Your task to perform on an android device: Empty the shopping cart on bestbuy.com. Search for "usb-b" on bestbuy.com, select the first entry, add it to the cart, then select checkout. Image 0: 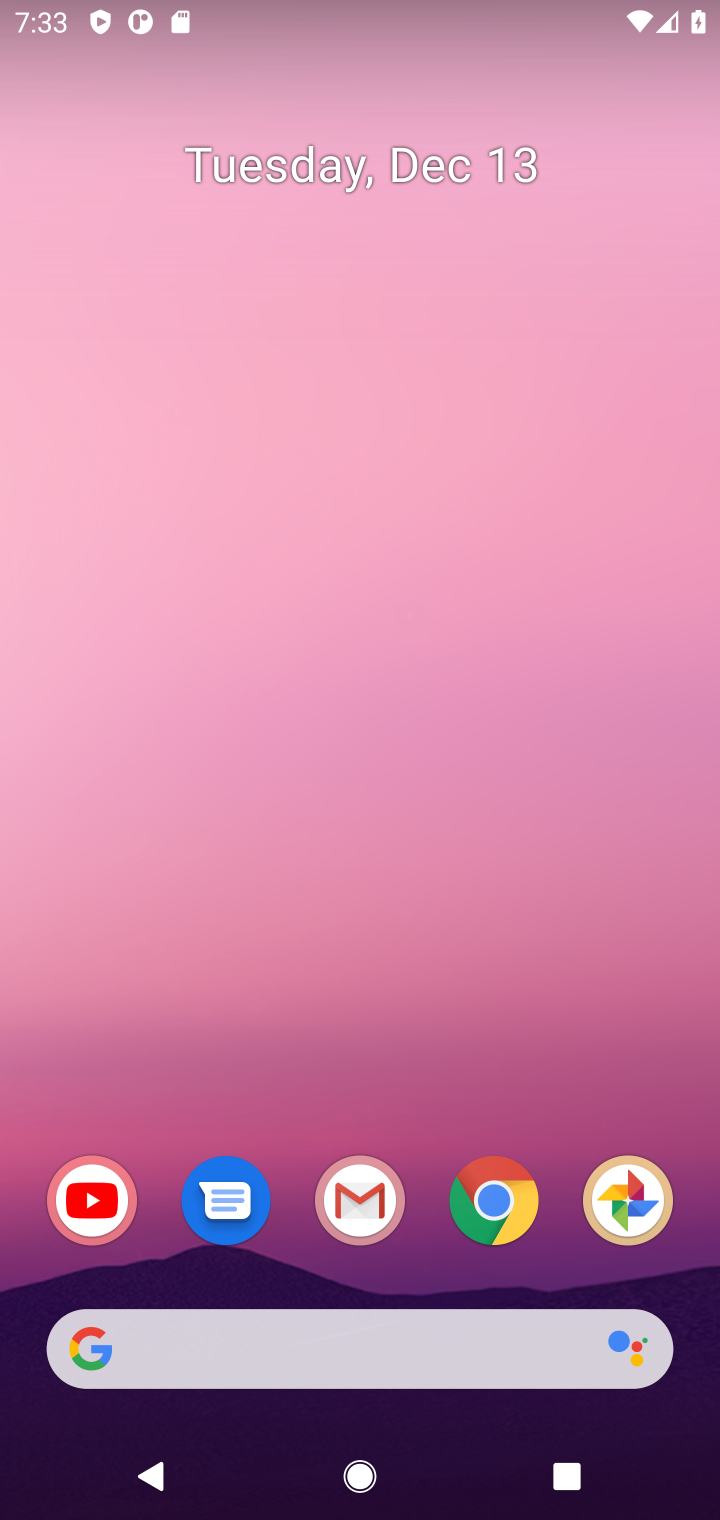
Step 0: drag from (342, 1275) to (293, 746)
Your task to perform on an android device: Empty the shopping cart on bestbuy.com. Search for "usb-b" on bestbuy.com, select the first entry, add it to the cart, then select checkout. Image 1: 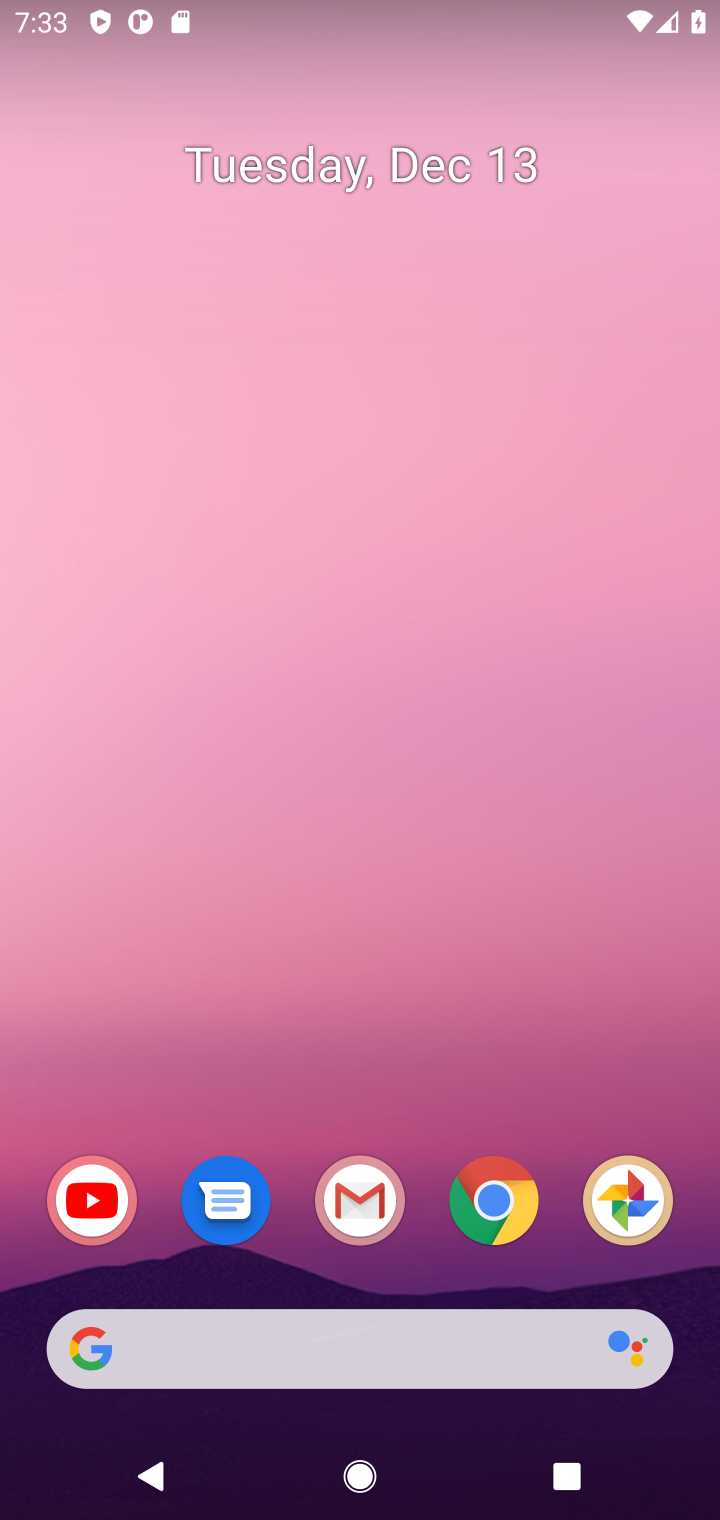
Step 1: drag from (324, 1207) to (364, 477)
Your task to perform on an android device: Empty the shopping cart on bestbuy.com. Search for "usb-b" on bestbuy.com, select the first entry, add it to the cart, then select checkout. Image 2: 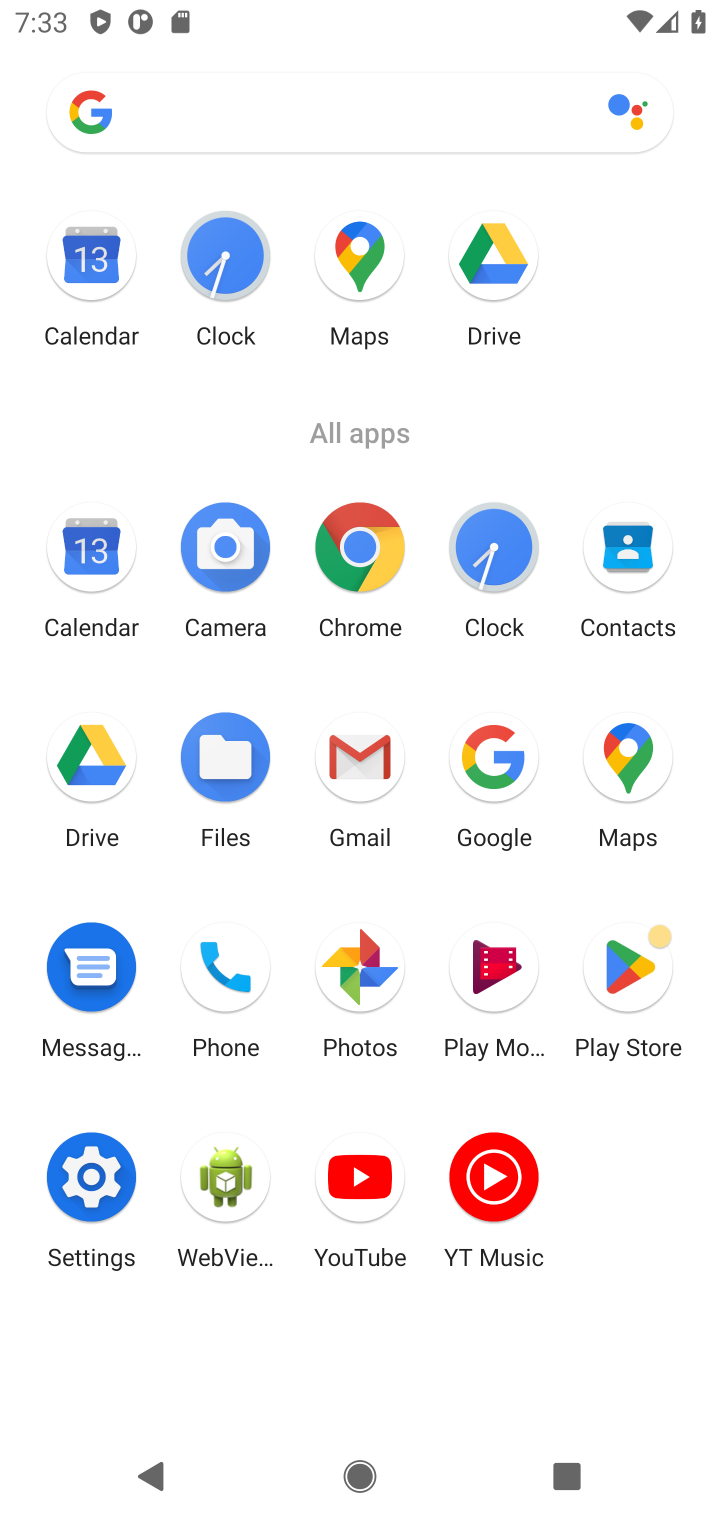
Step 2: click (364, 477)
Your task to perform on an android device: Empty the shopping cart on bestbuy.com. Search for "usb-b" on bestbuy.com, select the first entry, add it to the cart, then select checkout. Image 3: 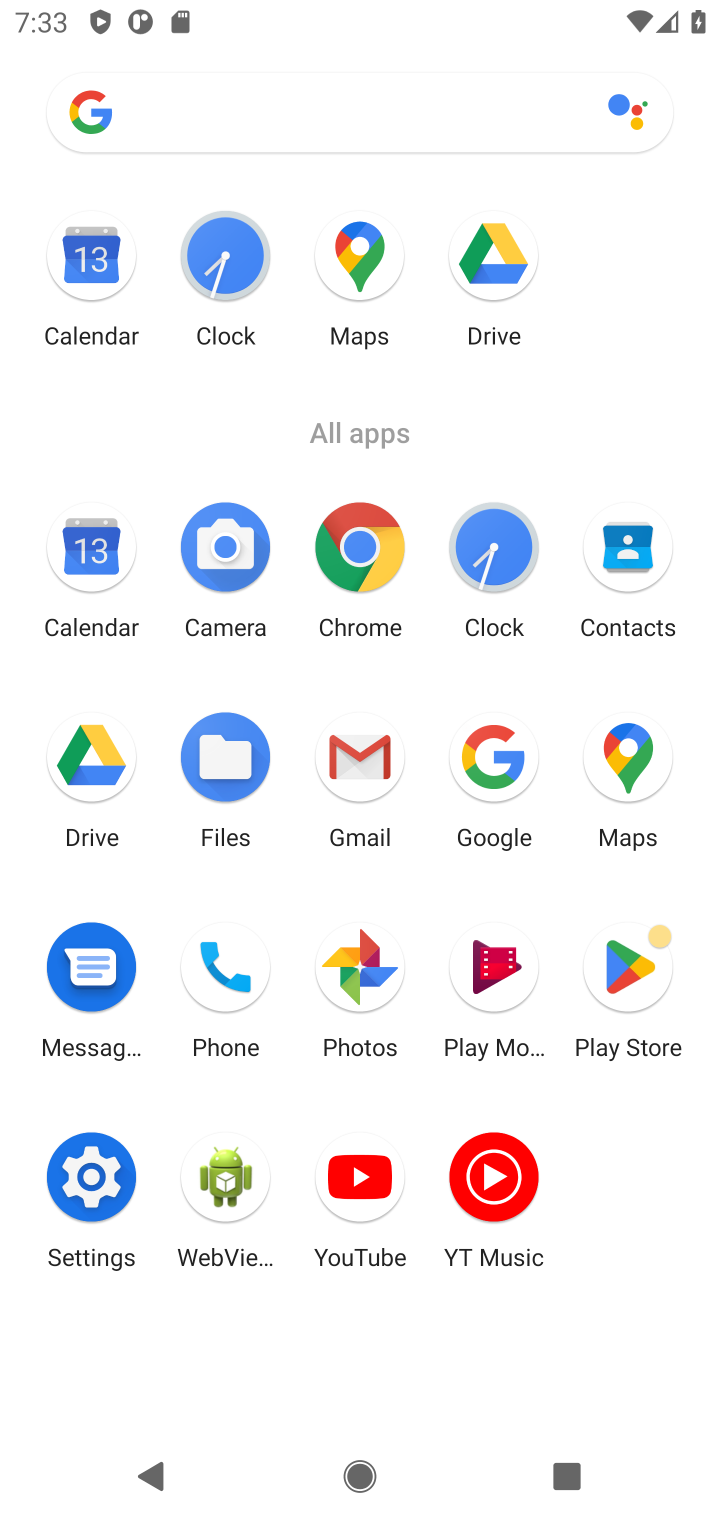
Step 3: click (503, 746)
Your task to perform on an android device: Empty the shopping cart on bestbuy.com. Search for "usb-b" on bestbuy.com, select the first entry, add it to the cart, then select checkout. Image 4: 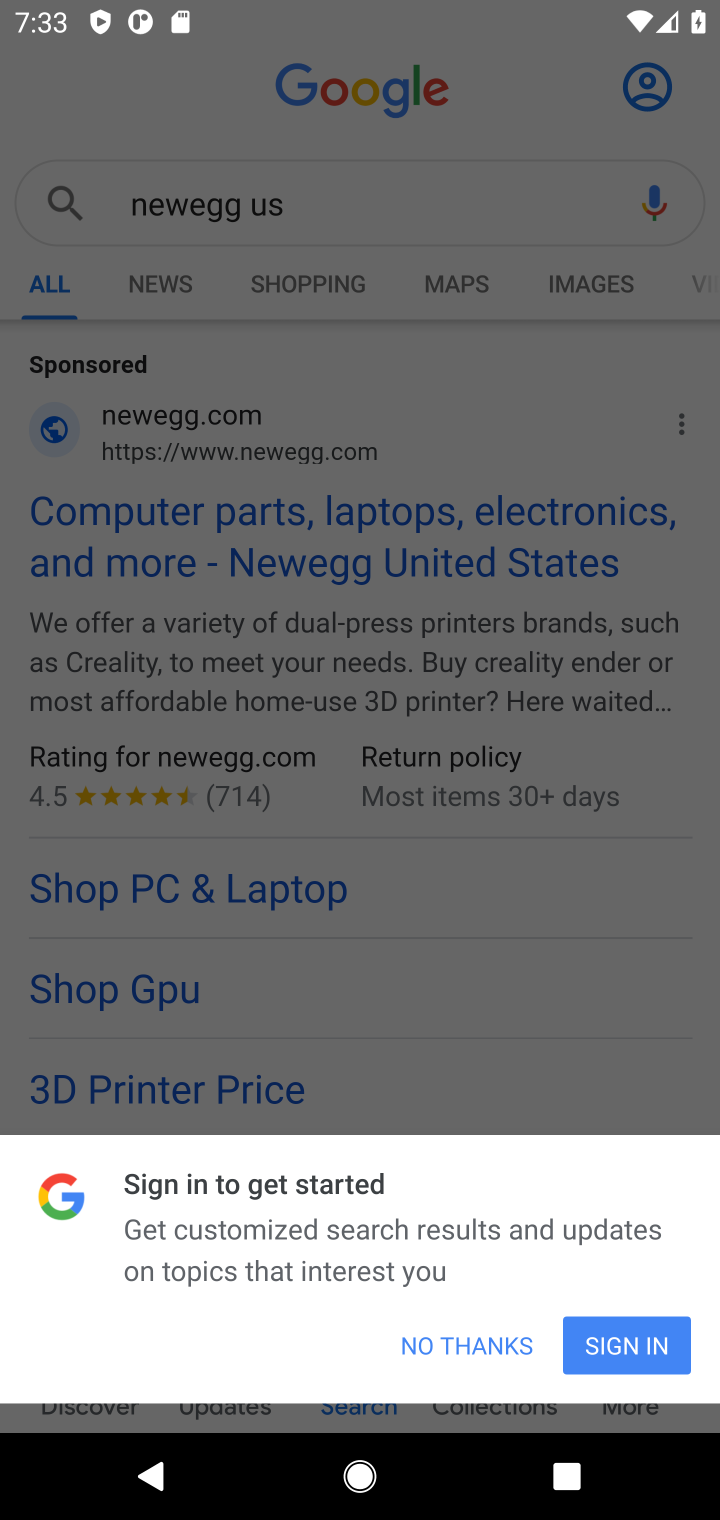
Step 4: click (465, 1342)
Your task to perform on an android device: Empty the shopping cart on bestbuy.com. Search for "usb-b" on bestbuy.com, select the first entry, add it to the cart, then select checkout. Image 5: 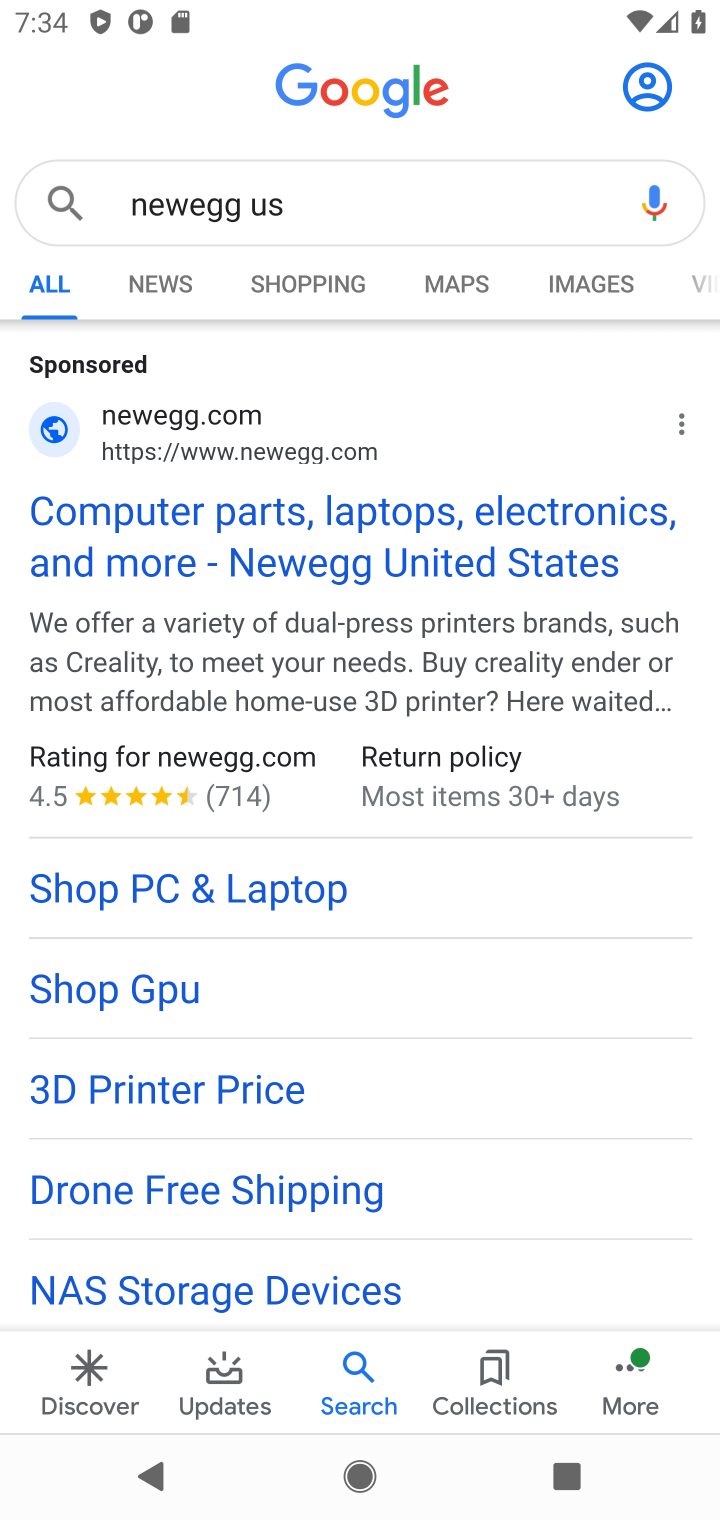
Step 5: click (365, 197)
Your task to perform on an android device: Empty the shopping cart on bestbuy.com. Search for "usb-b" on bestbuy.com, select the first entry, add it to the cart, then select checkout. Image 6: 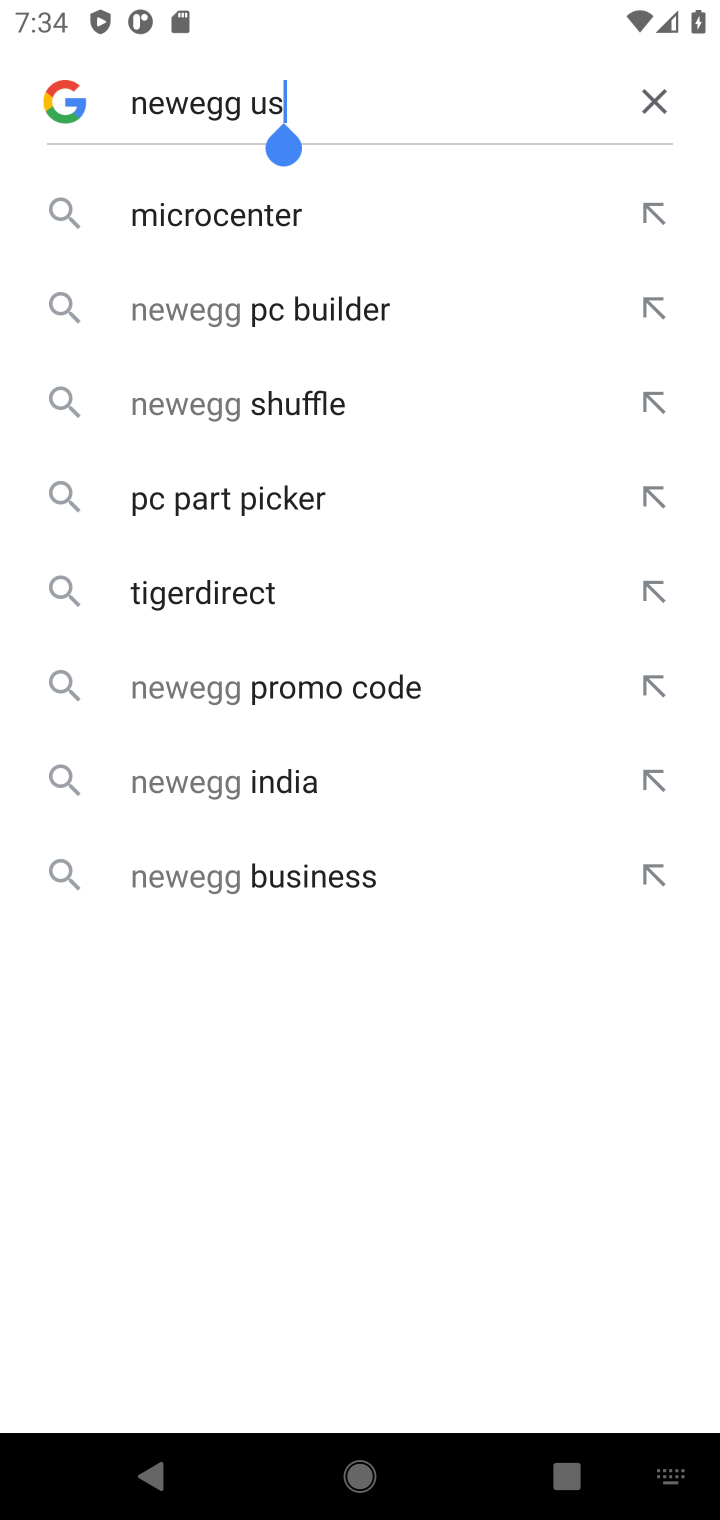
Step 6: click (660, 102)
Your task to perform on an android device: Empty the shopping cart on bestbuy.com. Search for "usb-b" on bestbuy.com, select the first entry, add it to the cart, then select checkout. Image 7: 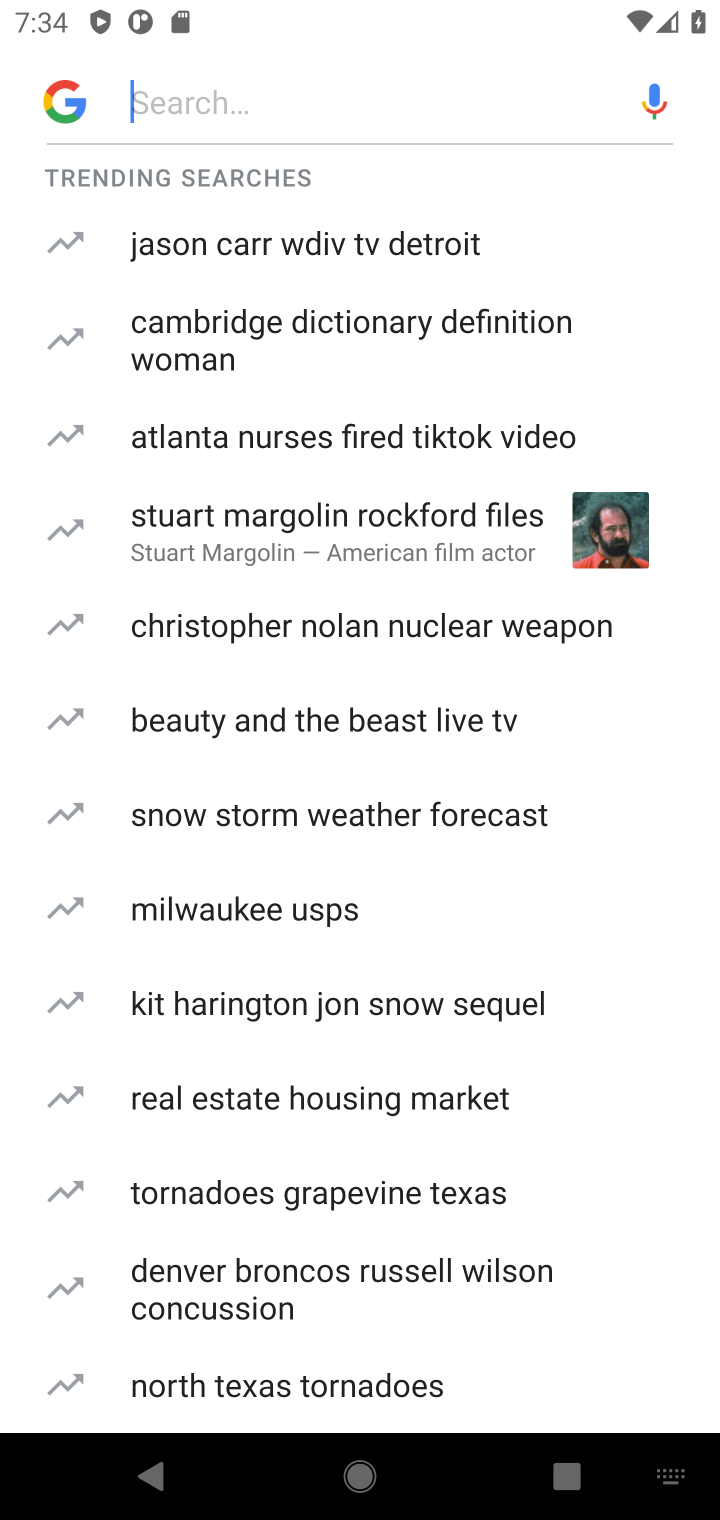
Step 7: type " bestbuy.com"
Your task to perform on an android device: Empty the shopping cart on bestbuy.com. Search for "usb-b" on bestbuy.com, select the first entry, add it to the cart, then select checkout. Image 8: 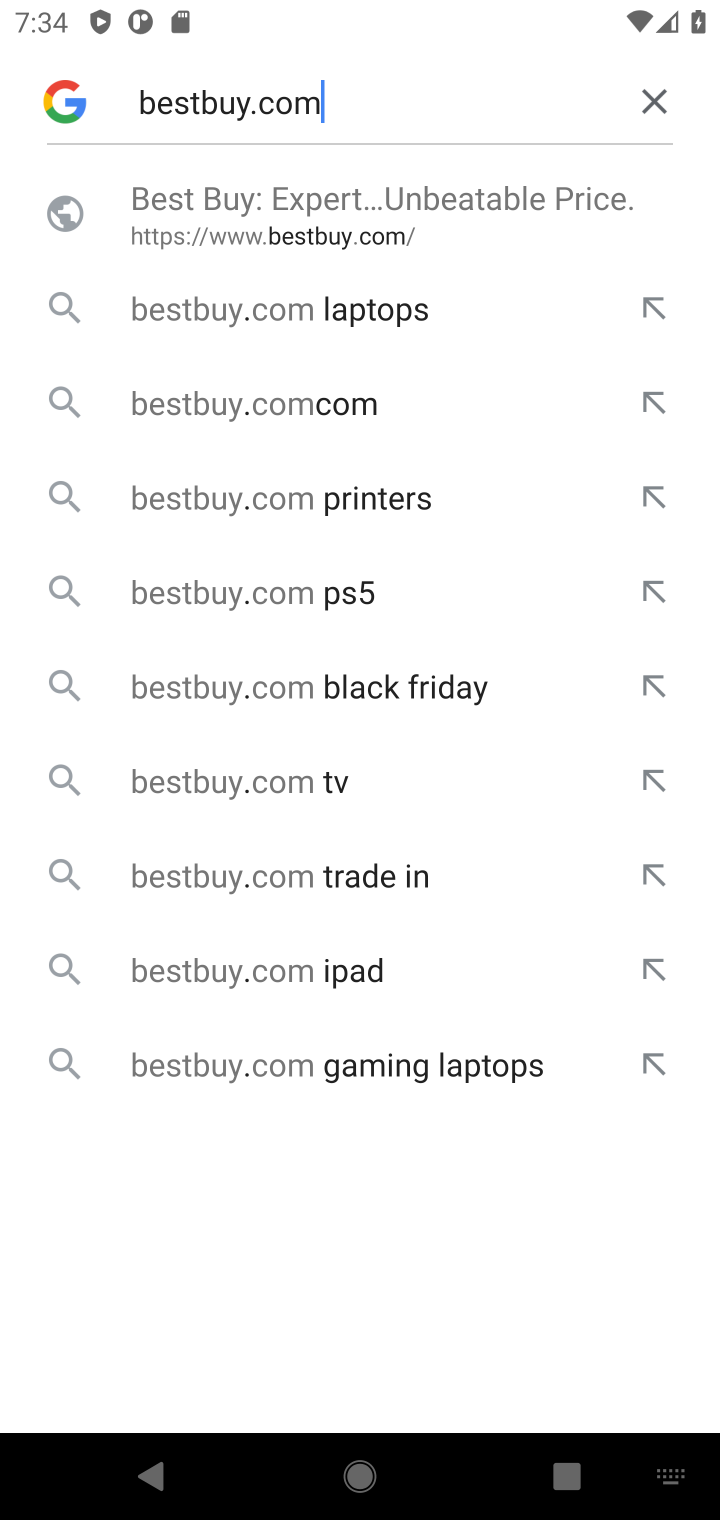
Step 8: click (292, 210)
Your task to perform on an android device: Empty the shopping cart on bestbuy.com. Search for "usb-b" on bestbuy.com, select the first entry, add it to the cart, then select checkout. Image 9: 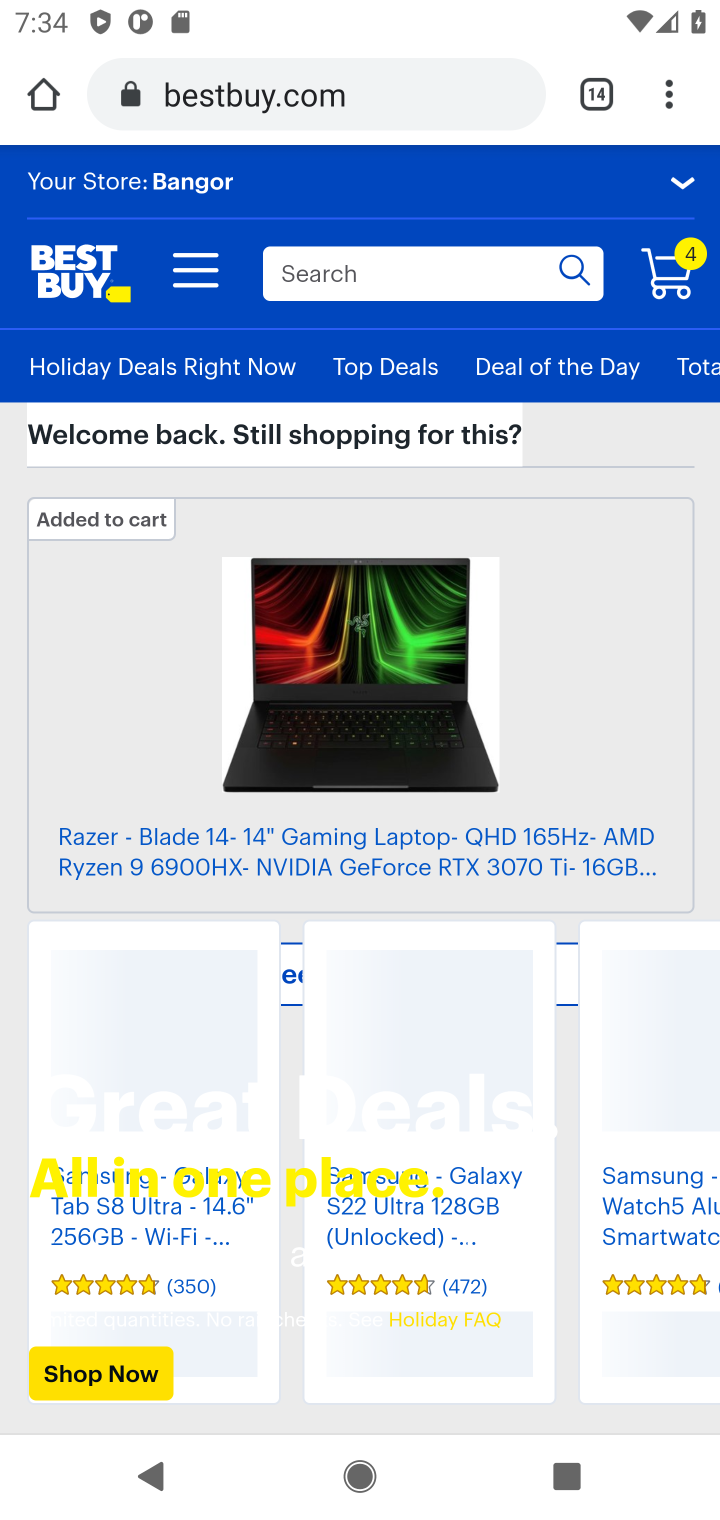
Step 9: click (684, 270)
Your task to perform on an android device: Empty the shopping cart on bestbuy.com. Search for "usb-b" on bestbuy.com, select the first entry, add it to the cart, then select checkout. Image 10: 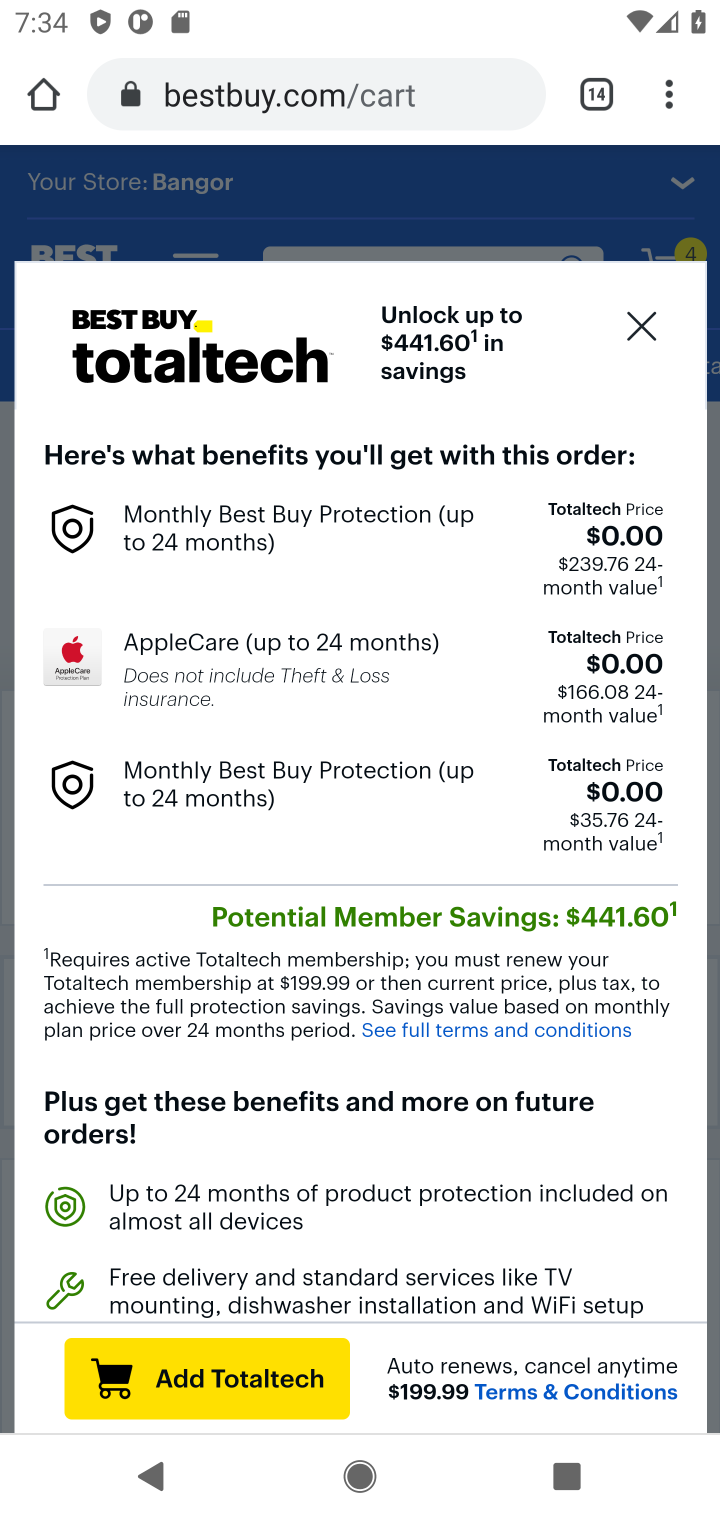
Step 10: click (647, 314)
Your task to perform on an android device: Empty the shopping cart on bestbuy.com. Search for "usb-b" on bestbuy.com, select the first entry, add it to the cart, then select checkout. Image 11: 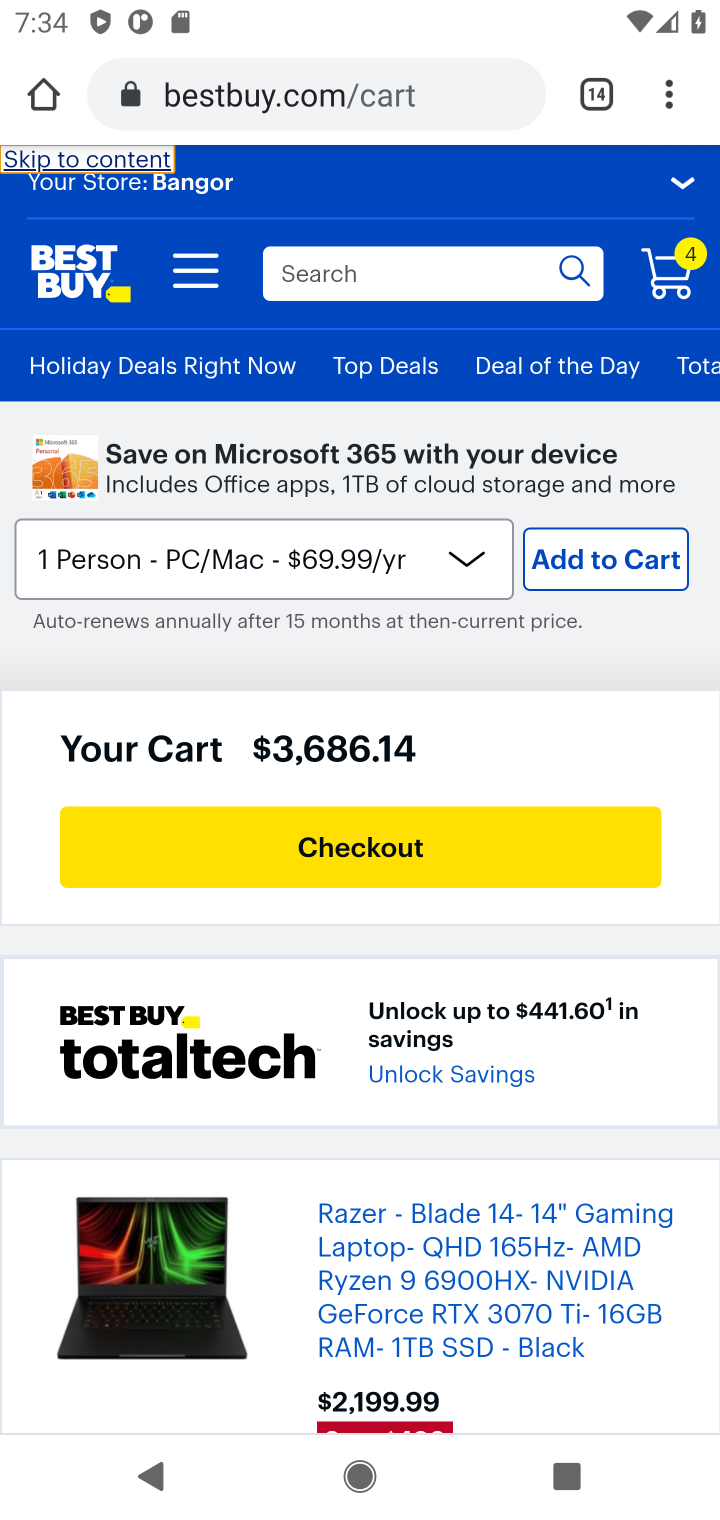
Step 11: drag from (455, 1128) to (465, 771)
Your task to perform on an android device: Empty the shopping cart on bestbuy.com. Search for "usb-b" on bestbuy.com, select the first entry, add it to the cart, then select checkout. Image 12: 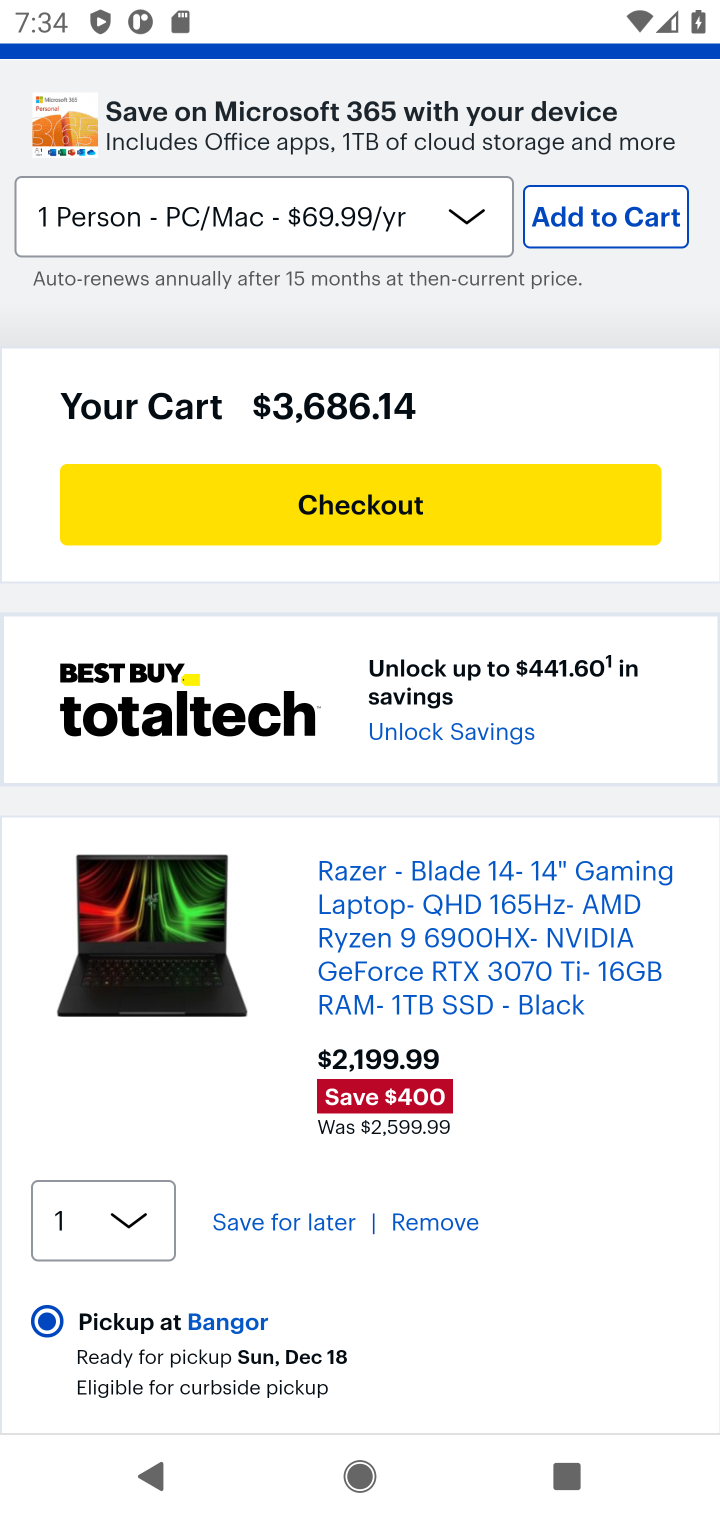
Step 12: click (419, 1213)
Your task to perform on an android device: Empty the shopping cart on bestbuy.com. Search for "usb-b" on bestbuy.com, select the first entry, add it to the cart, then select checkout. Image 13: 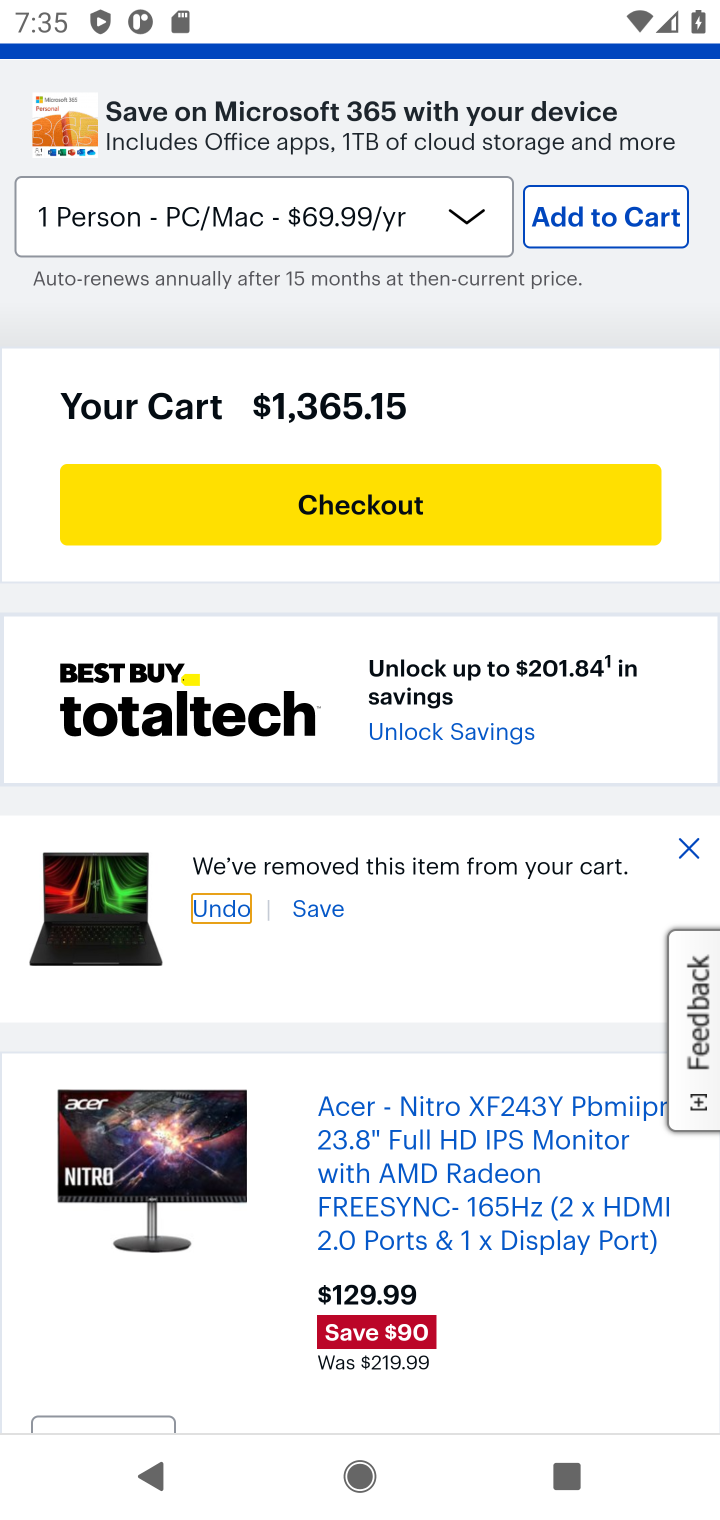
Step 13: drag from (537, 1249) to (467, 949)
Your task to perform on an android device: Empty the shopping cart on bestbuy.com. Search for "usb-b" on bestbuy.com, select the first entry, add it to the cart, then select checkout. Image 14: 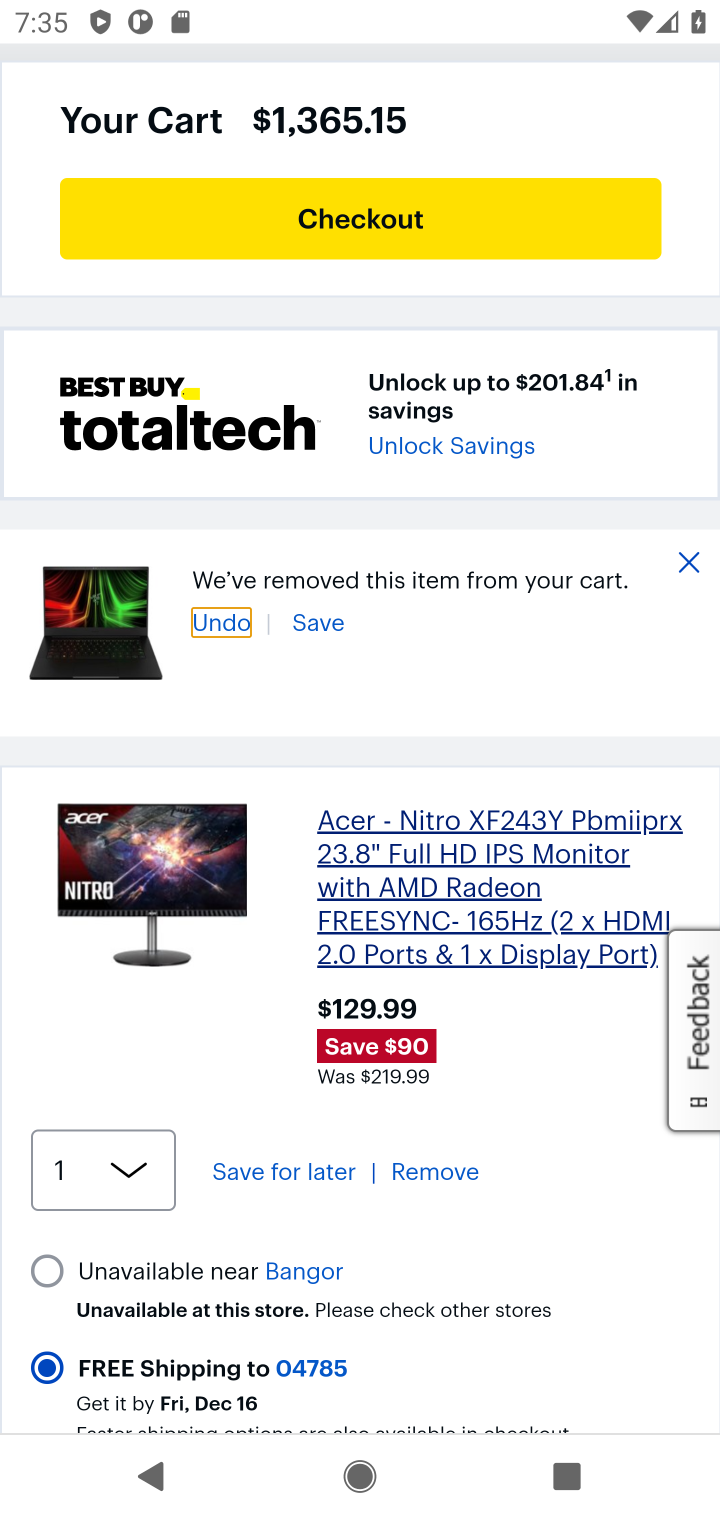
Step 14: click (422, 1168)
Your task to perform on an android device: Empty the shopping cart on bestbuy.com. Search for "usb-b" on bestbuy.com, select the first entry, add it to the cart, then select checkout. Image 15: 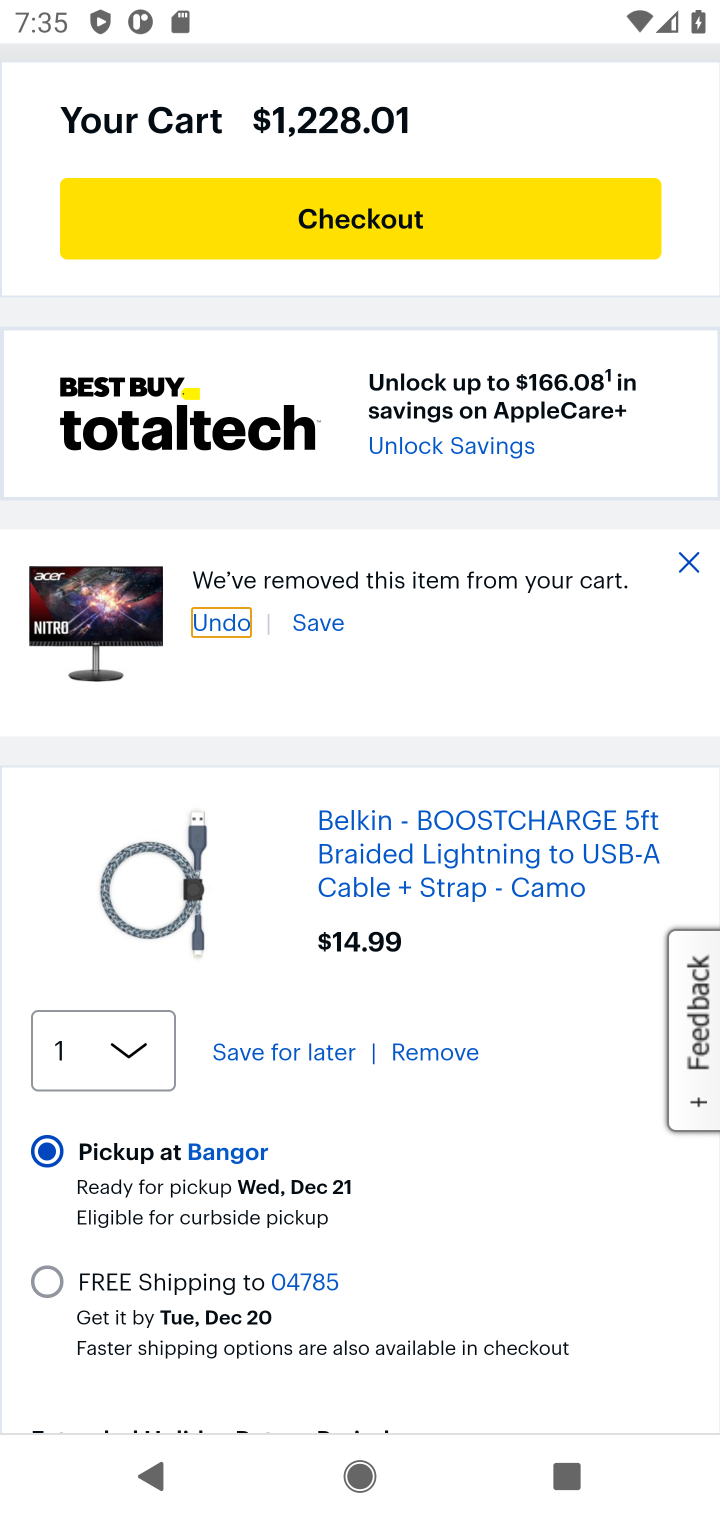
Step 15: drag from (476, 1153) to (440, 802)
Your task to perform on an android device: Empty the shopping cart on bestbuy.com. Search for "usb-b" on bestbuy.com, select the first entry, add it to the cart, then select checkout. Image 16: 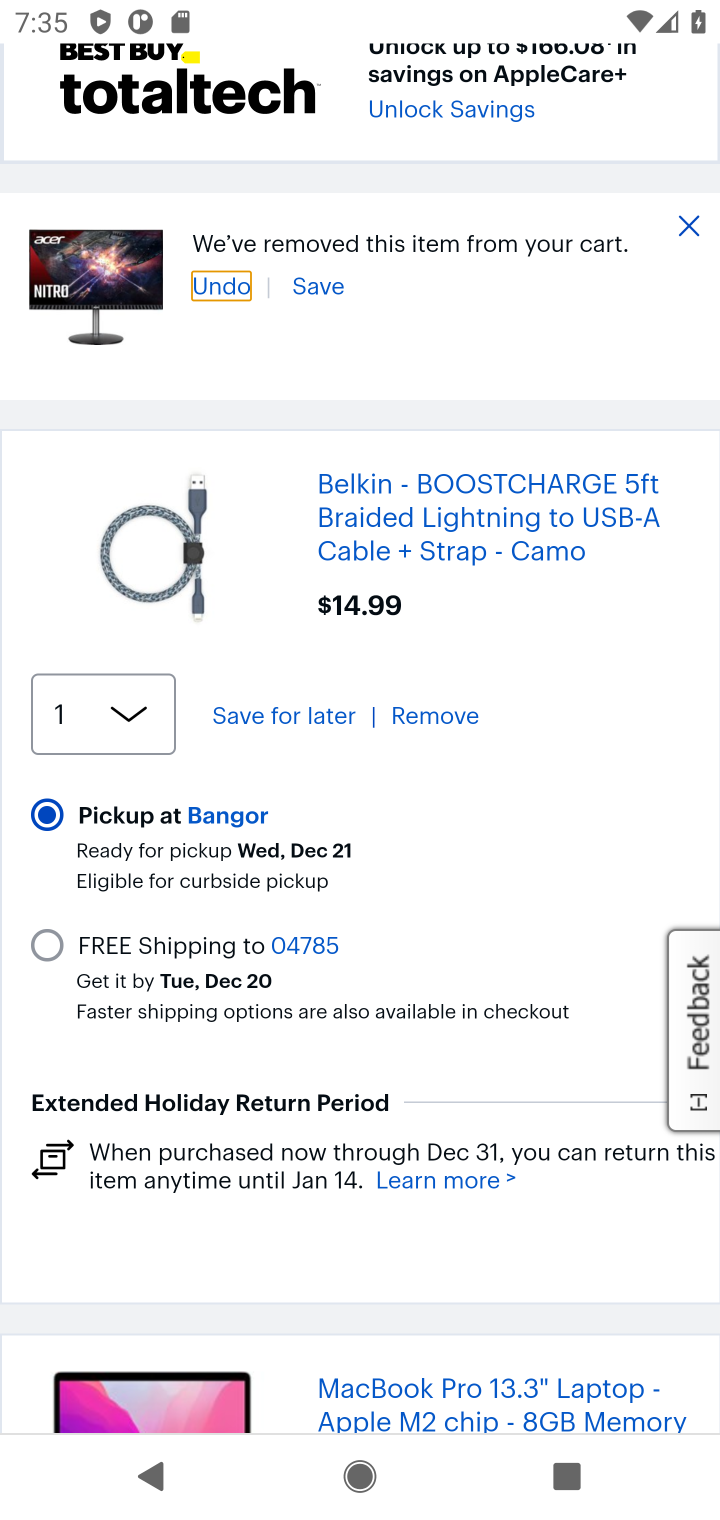
Step 16: click (436, 713)
Your task to perform on an android device: Empty the shopping cart on bestbuy.com. Search for "usb-b" on bestbuy.com, select the first entry, add it to the cart, then select checkout. Image 17: 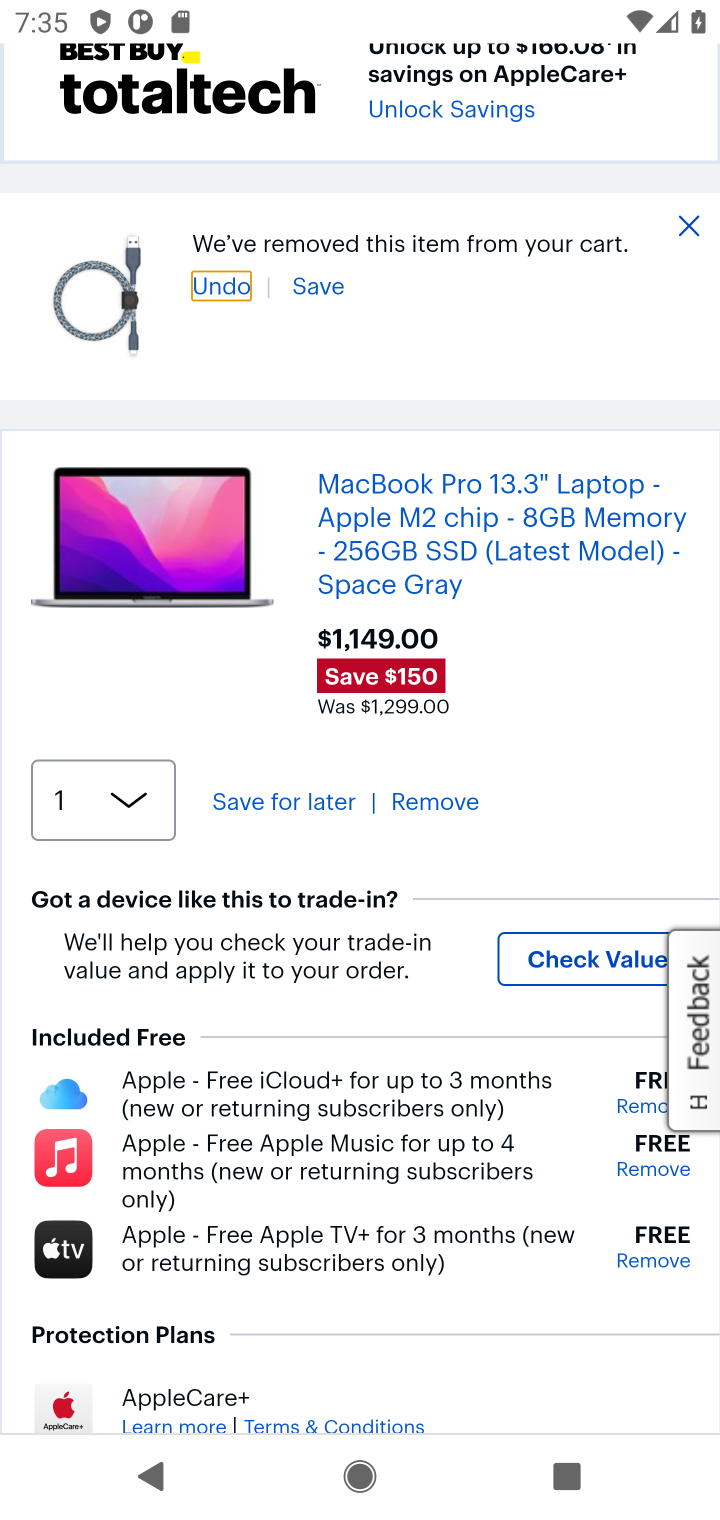
Step 17: click (452, 806)
Your task to perform on an android device: Empty the shopping cart on bestbuy.com. Search for "usb-b" on bestbuy.com, select the first entry, add it to the cart, then select checkout. Image 18: 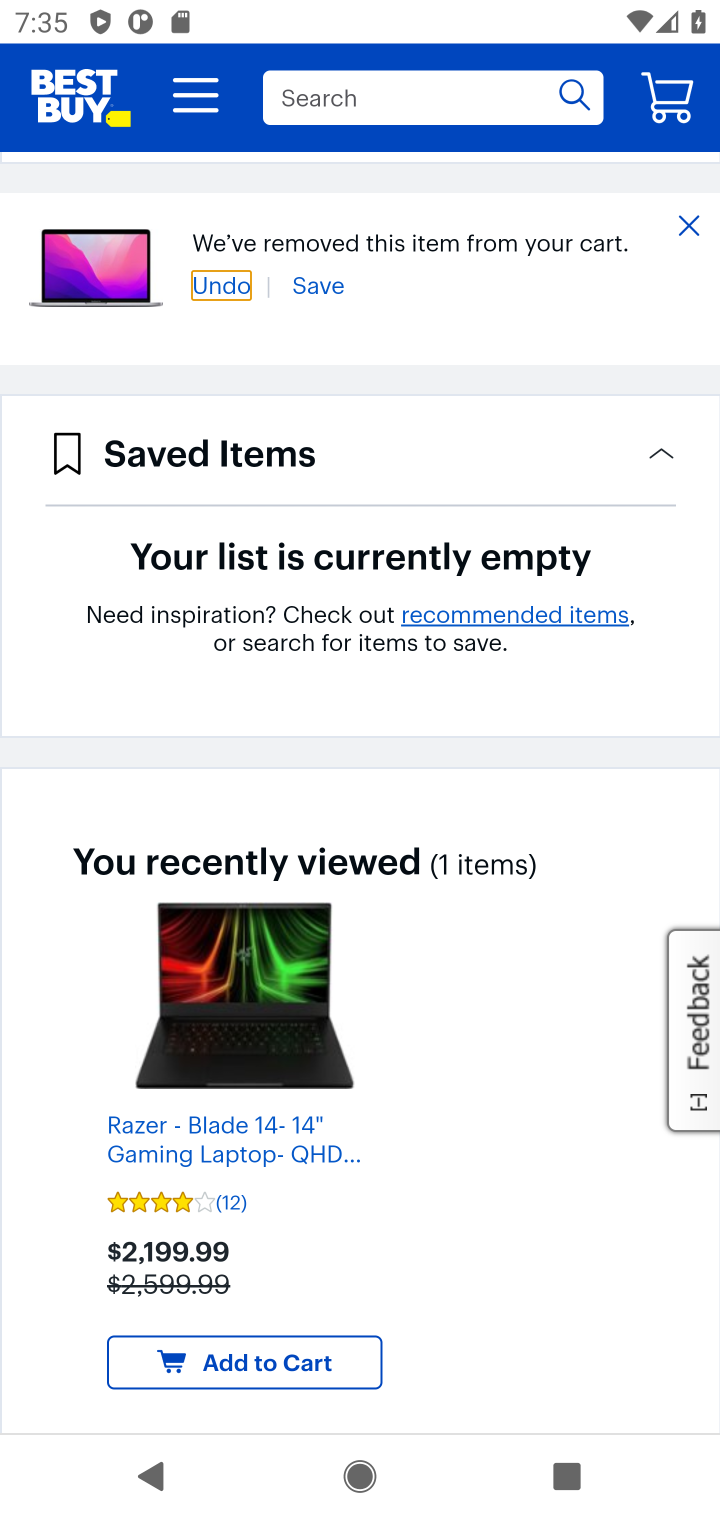
Step 18: drag from (627, 961) to (660, 1419)
Your task to perform on an android device: Empty the shopping cart on bestbuy.com. Search for "usb-b" on bestbuy.com, select the first entry, add it to the cart, then select checkout. Image 19: 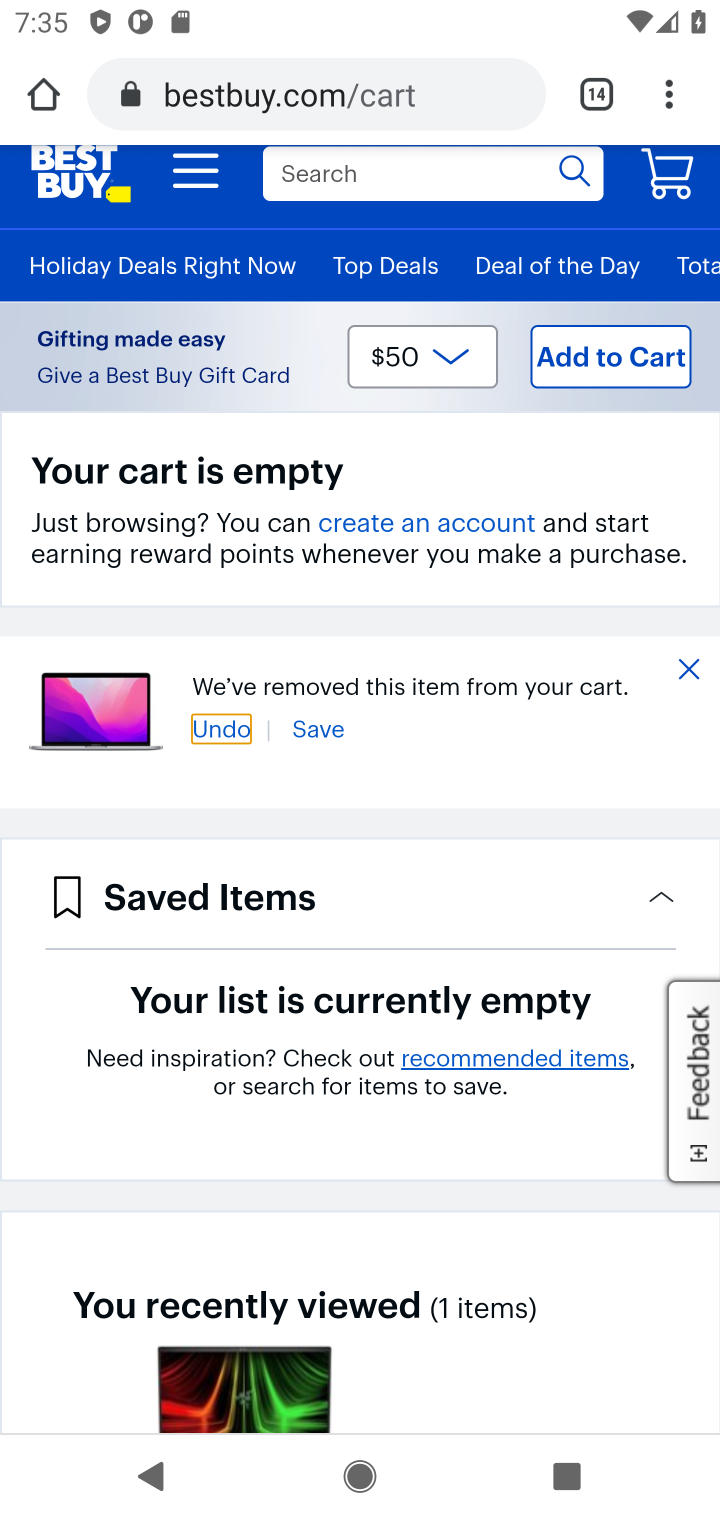
Step 19: click (390, 189)
Your task to perform on an android device: Empty the shopping cart on bestbuy.com. Search for "usb-b" on bestbuy.com, select the first entry, add it to the cart, then select checkout. Image 20: 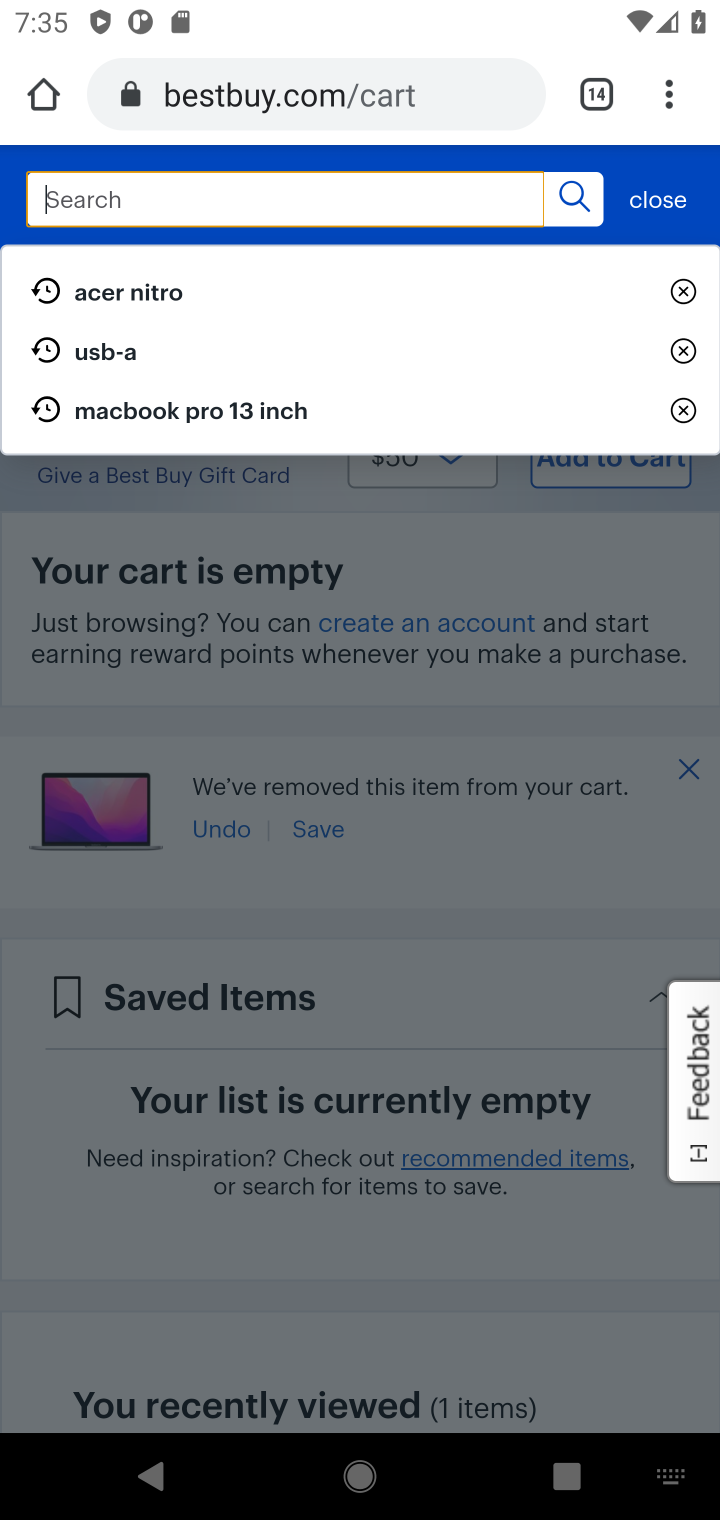
Step 20: type "usb-b"
Your task to perform on an android device: Empty the shopping cart on bestbuy.com. Search for "usb-b" on bestbuy.com, select the first entry, add it to the cart, then select checkout. Image 21: 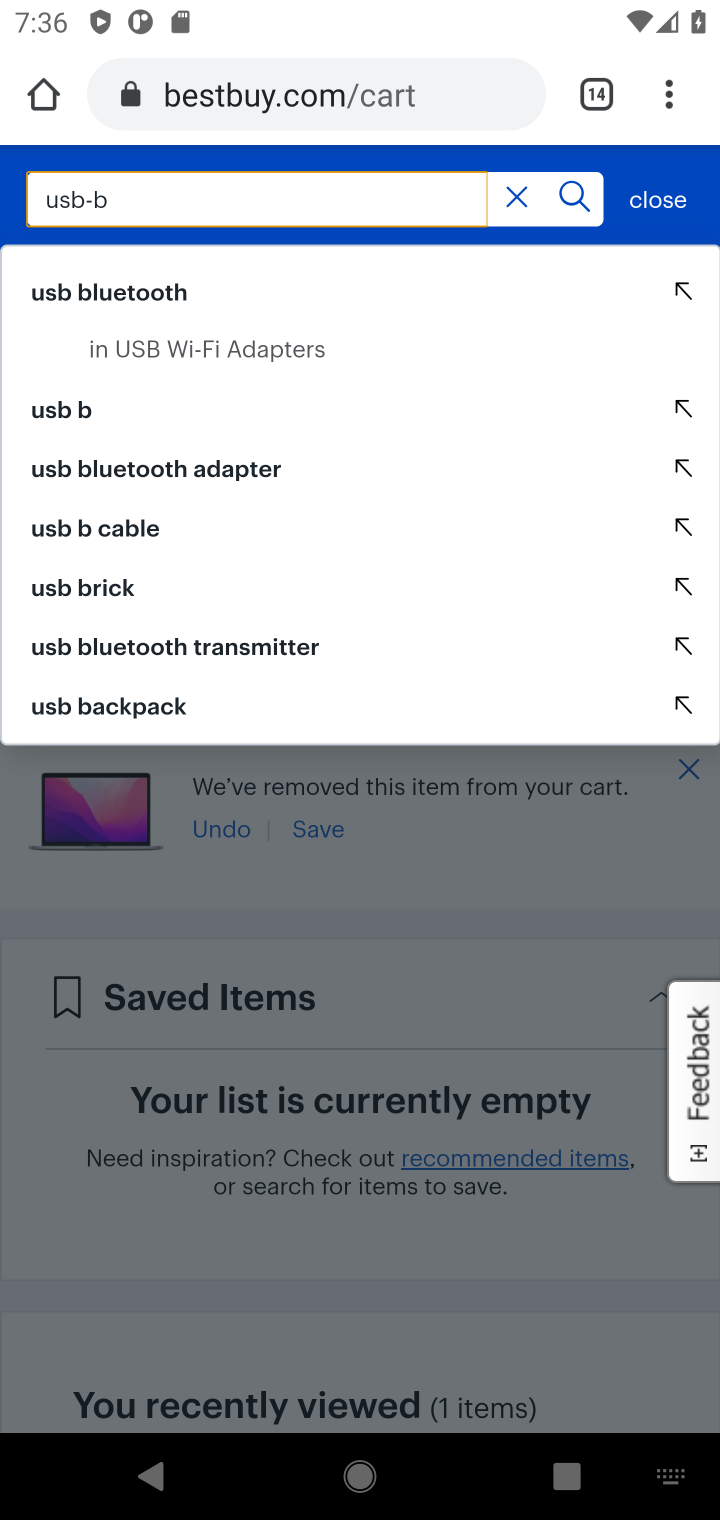
Step 21: click (567, 190)
Your task to perform on an android device: Empty the shopping cart on bestbuy.com. Search for "usb-b" on bestbuy.com, select the first entry, add it to the cart, then select checkout. Image 22: 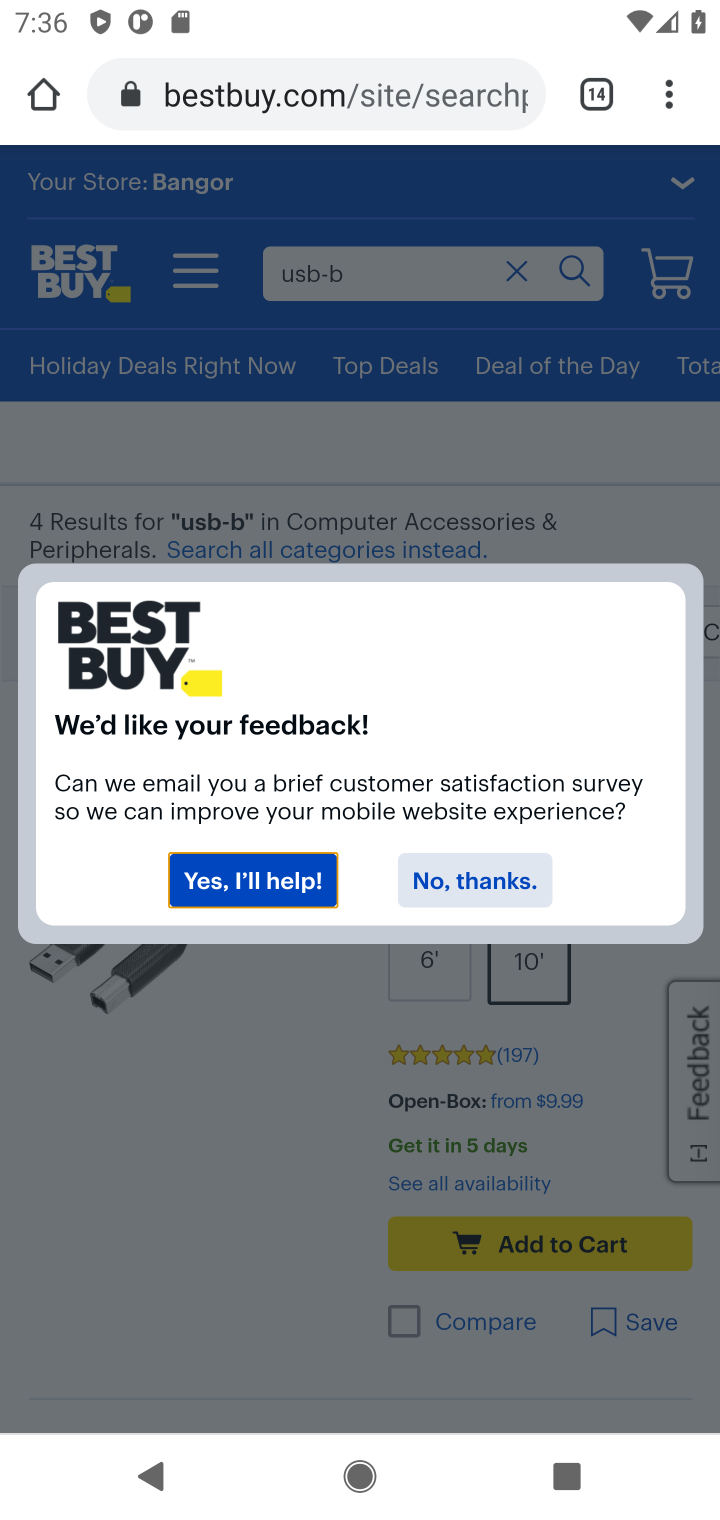
Step 22: click (431, 886)
Your task to perform on an android device: Empty the shopping cart on bestbuy.com. Search for "usb-b" on bestbuy.com, select the first entry, add it to the cart, then select checkout. Image 23: 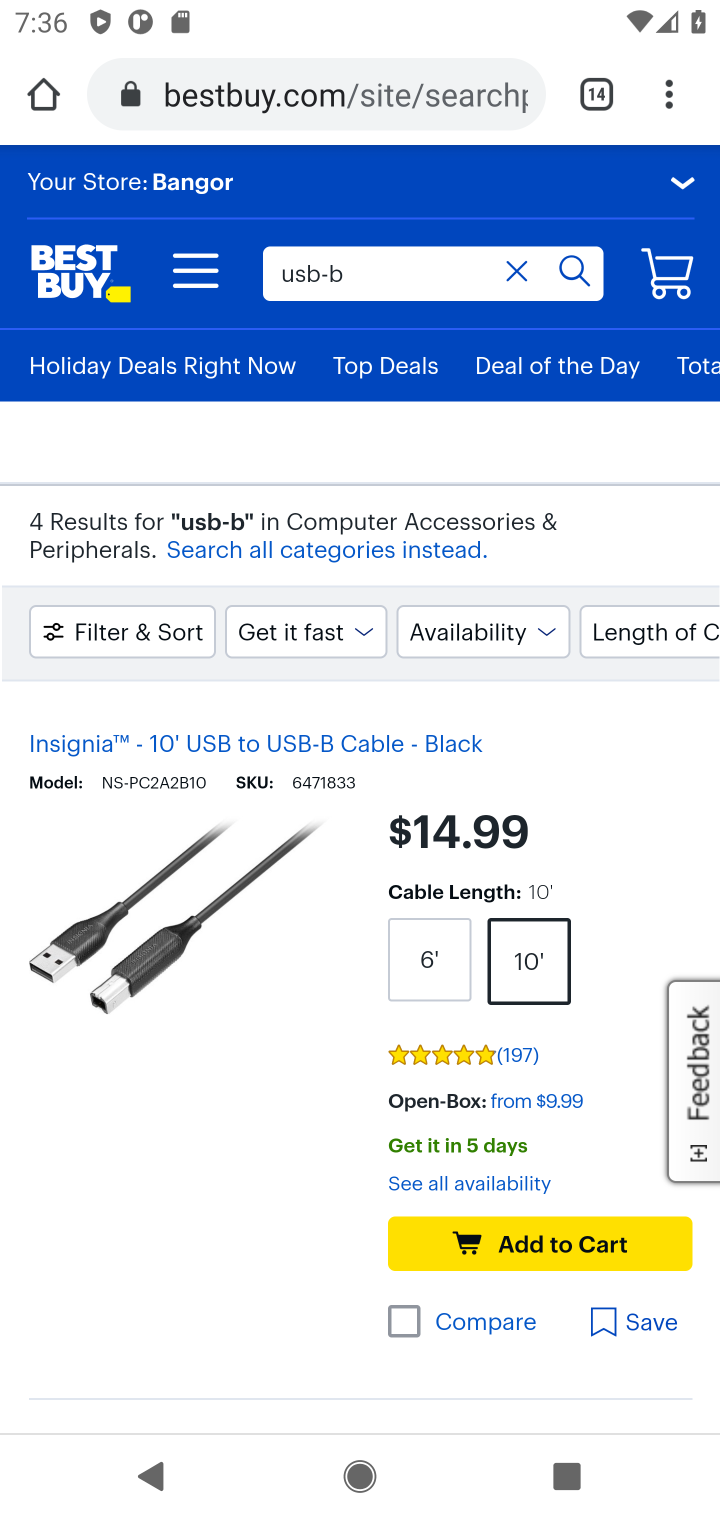
Step 23: click (544, 1255)
Your task to perform on an android device: Empty the shopping cart on bestbuy.com. Search for "usb-b" on bestbuy.com, select the first entry, add it to the cart, then select checkout. Image 24: 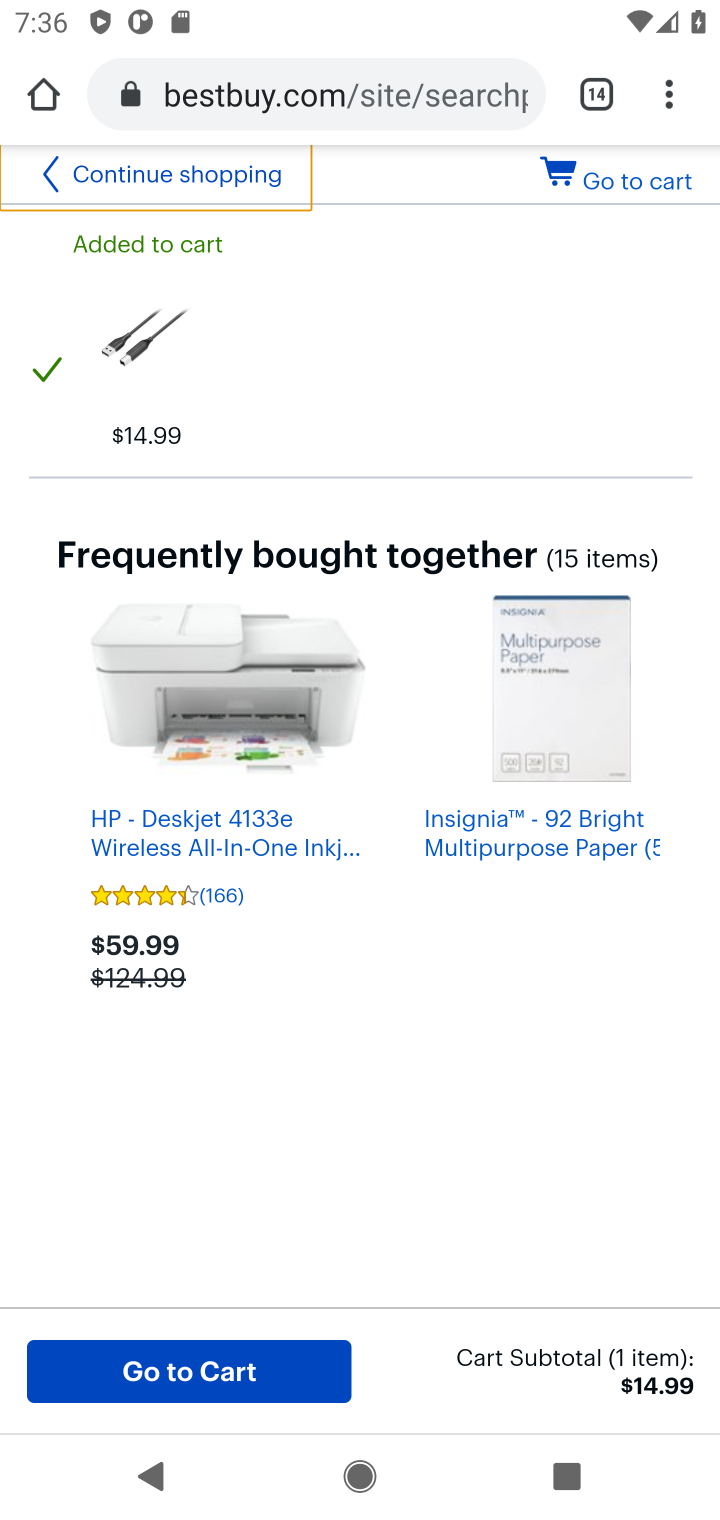
Step 24: click (240, 1355)
Your task to perform on an android device: Empty the shopping cart on bestbuy.com. Search for "usb-b" on bestbuy.com, select the first entry, add it to the cart, then select checkout. Image 25: 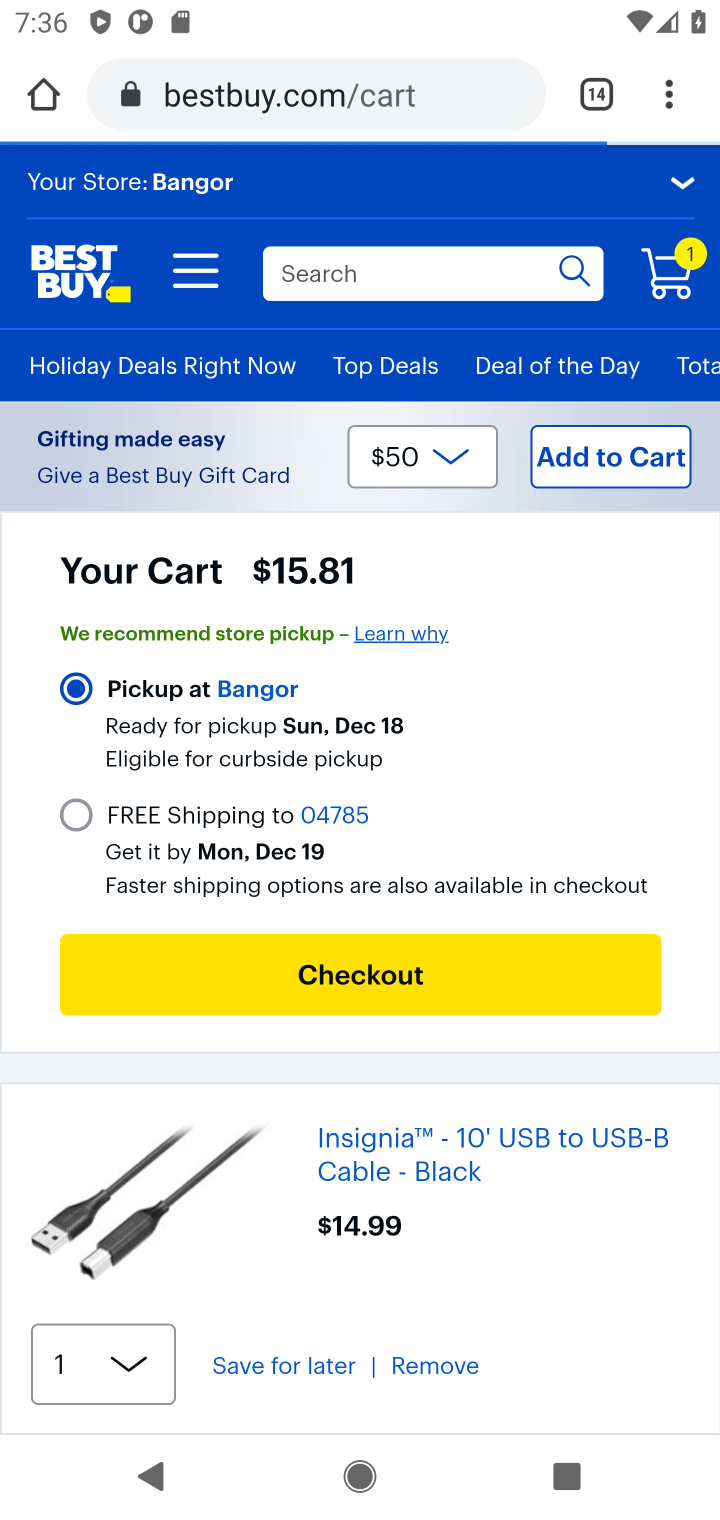
Step 25: click (372, 969)
Your task to perform on an android device: Empty the shopping cart on bestbuy.com. Search for "usb-b" on bestbuy.com, select the first entry, add it to the cart, then select checkout. Image 26: 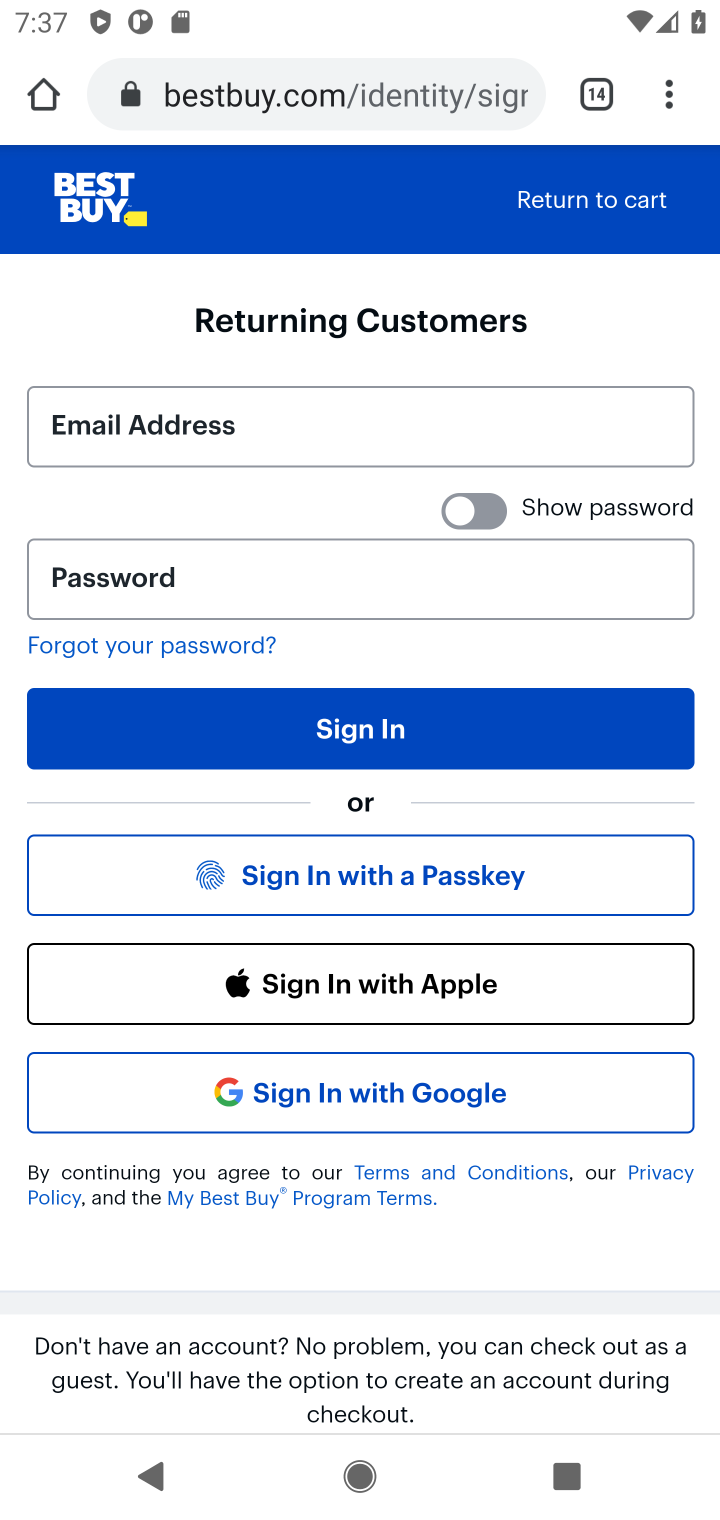
Step 26: task complete